Your task to perform on an android device: Go to Yahoo.com Image 0: 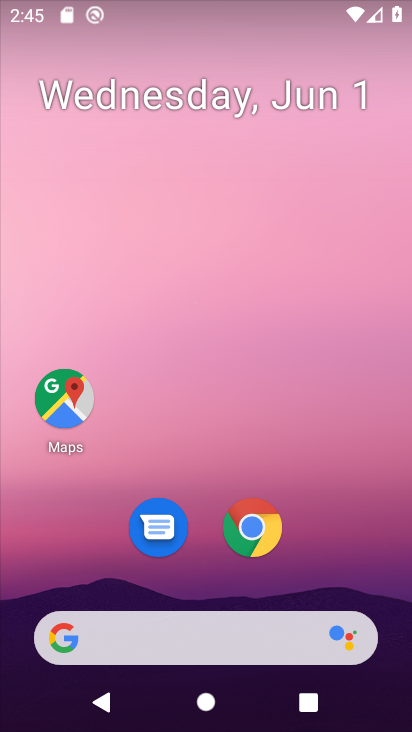
Step 0: click (255, 519)
Your task to perform on an android device: Go to Yahoo.com Image 1: 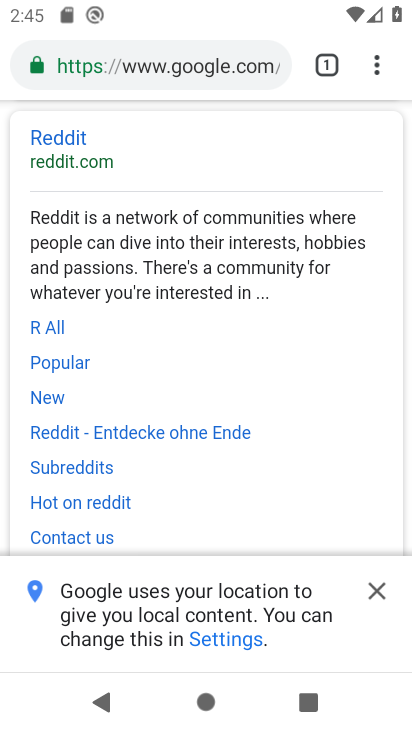
Step 1: click (161, 58)
Your task to perform on an android device: Go to Yahoo.com Image 2: 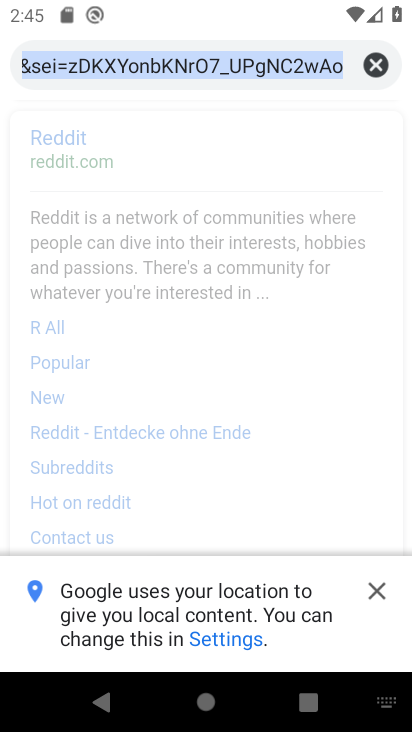
Step 2: type "Yahoo.com"
Your task to perform on an android device: Go to Yahoo.com Image 3: 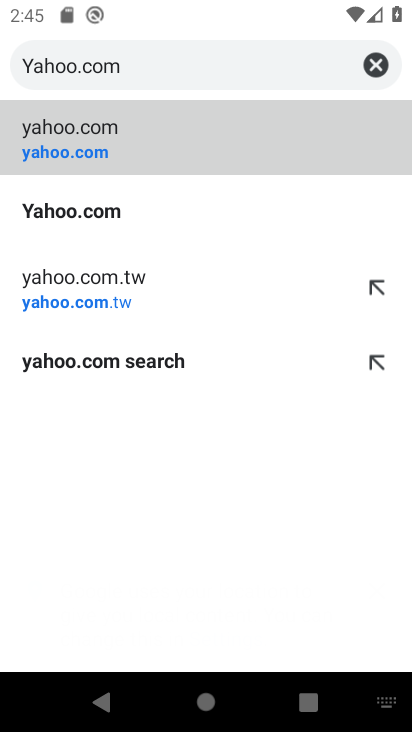
Step 3: click (126, 131)
Your task to perform on an android device: Go to Yahoo.com Image 4: 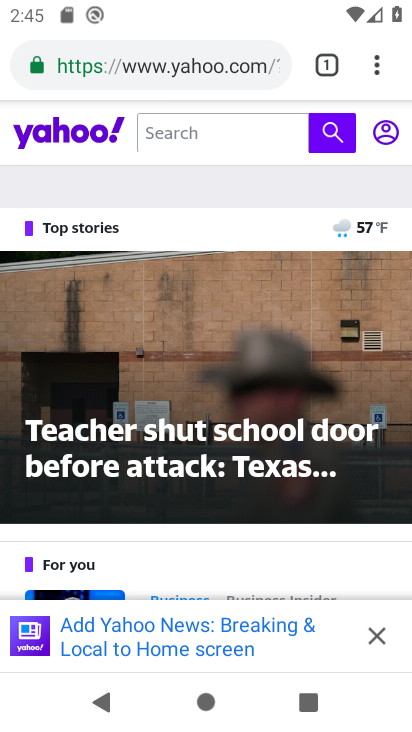
Step 4: task complete